Your task to perform on an android device: open app "Google Pay: Save, Pay, Manage" Image 0: 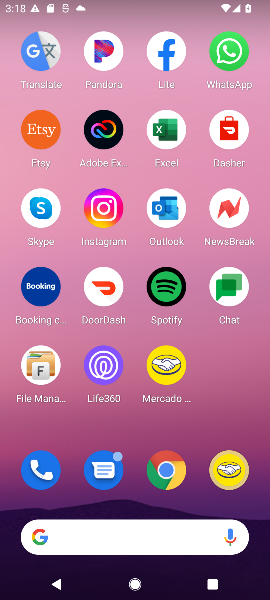
Step 0: drag from (114, 447) to (134, 22)
Your task to perform on an android device: open app "Google Pay: Save, Pay, Manage" Image 1: 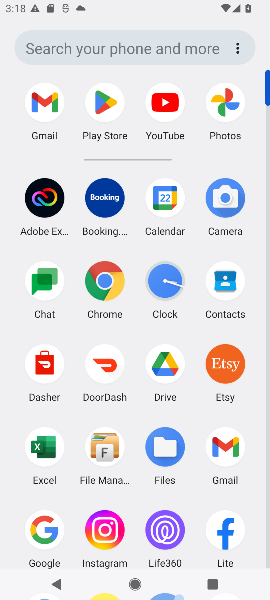
Step 1: drag from (125, 466) to (148, 103)
Your task to perform on an android device: open app "Google Pay: Save, Pay, Manage" Image 2: 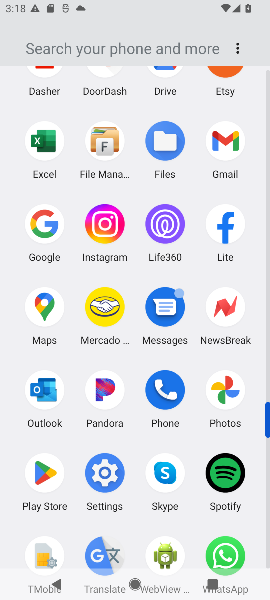
Step 2: click (35, 473)
Your task to perform on an android device: open app "Google Pay: Save, Pay, Manage" Image 3: 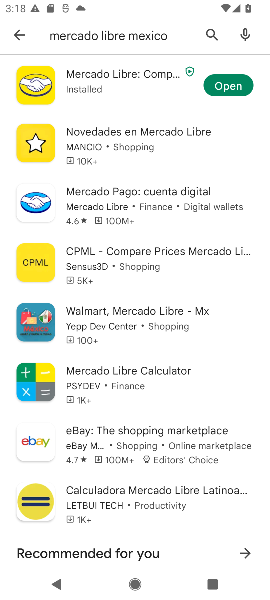
Step 3: click (17, 26)
Your task to perform on an android device: open app "Google Pay: Save, Pay, Manage" Image 4: 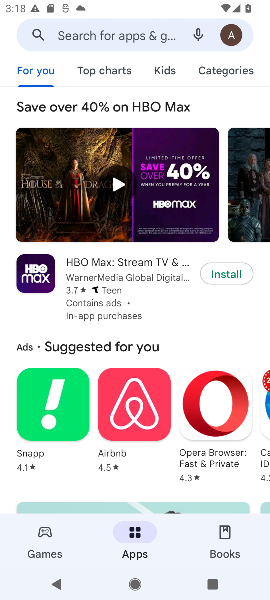
Step 4: click (127, 28)
Your task to perform on an android device: open app "Google Pay: Save, Pay, Manage" Image 5: 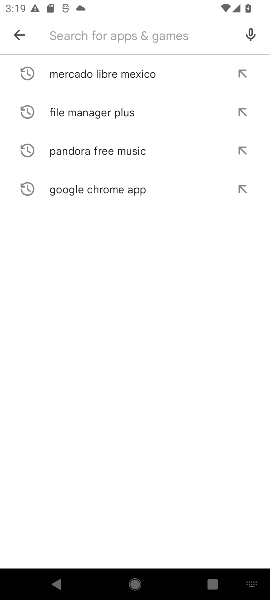
Step 5: type "Google Pay: Save, Pay, Manage "
Your task to perform on an android device: open app "Google Pay: Save, Pay, Manage" Image 6: 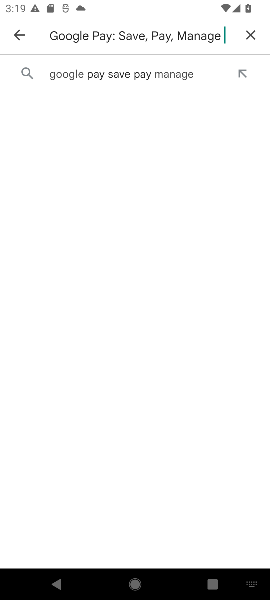
Step 6: click (140, 81)
Your task to perform on an android device: open app "Google Pay: Save, Pay, Manage" Image 7: 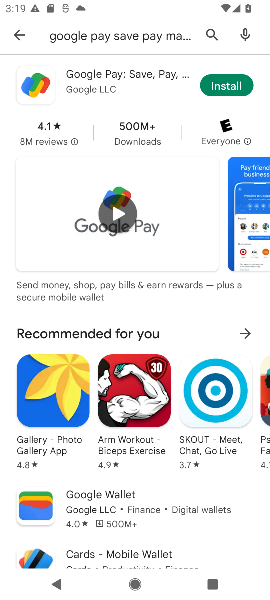
Step 7: click (213, 74)
Your task to perform on an android device: open app "Google Pay: Save, Pay, Manage" Image 8: 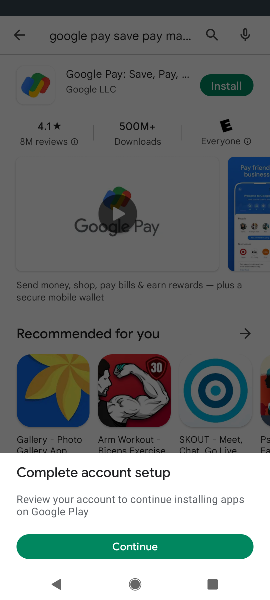
Step 8: task complete